Your task to perform on an android device: turn on javascript in the chrome app Image 0: 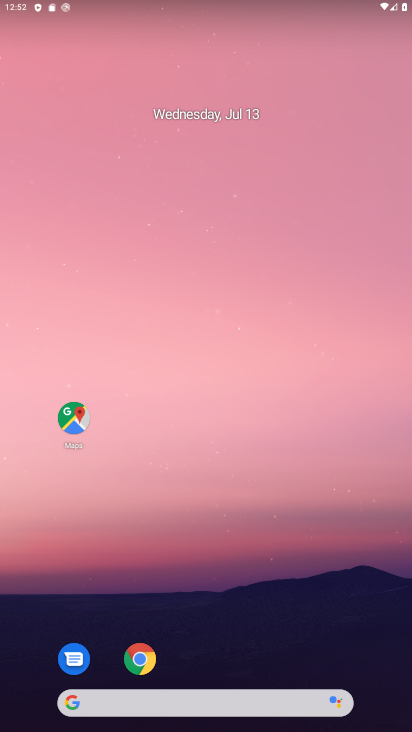
Step 0: click (152, 666)
Your task to perform on an android device: turn on javascript in the chrome app Image 1: 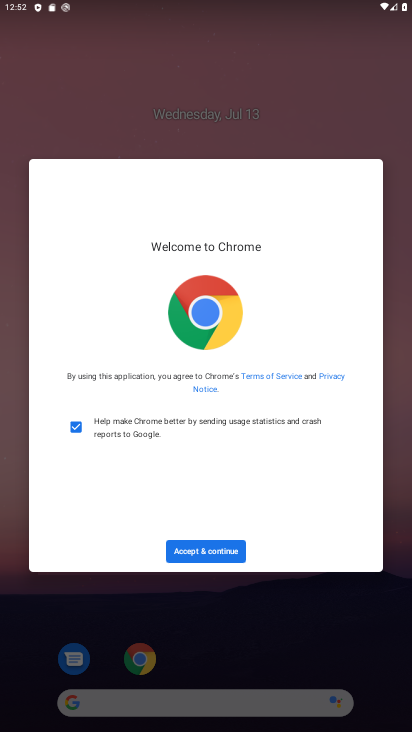
Step 1: click (212, 551)
Your task to perform on an android device: turn on javascript in the chrome app Image 2: 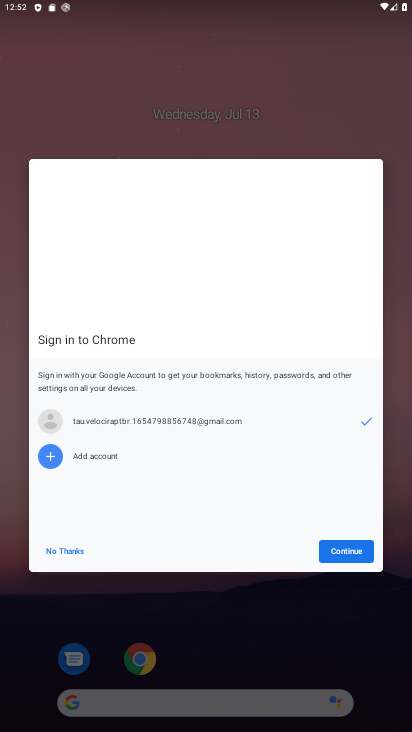
Step 2: click (340, 545)
Your task to perform on an android device: turn on javascript in the chrome app Image 3: 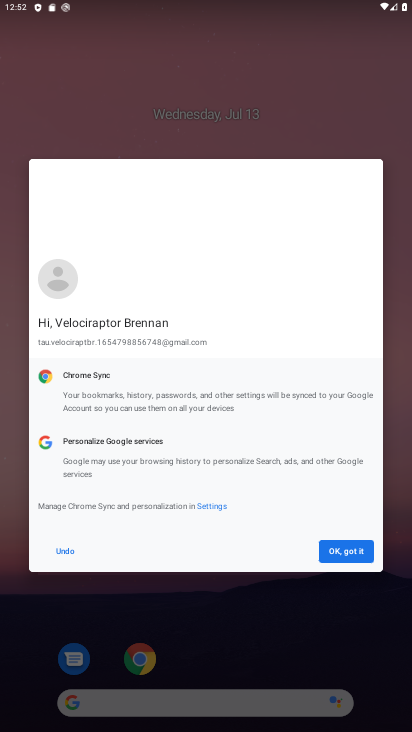
Step 3: click (332, 545)
Your task to perform on an android device: turn on javascript in the chrome app Image 4: 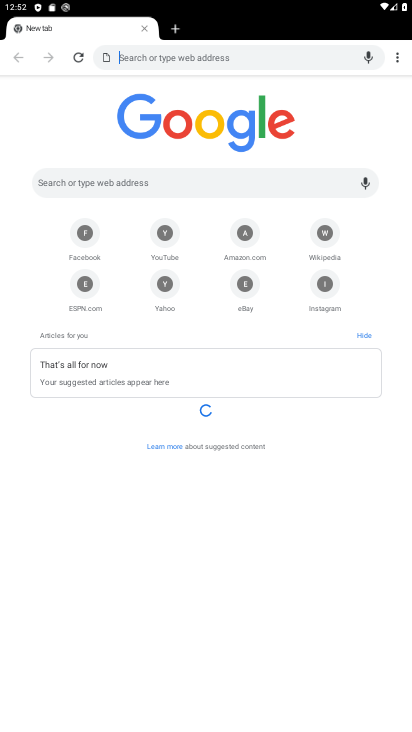
Step 4: click (394, 59)
Your task to perform on an android device: turn on javascript in the chrome app Image 5: 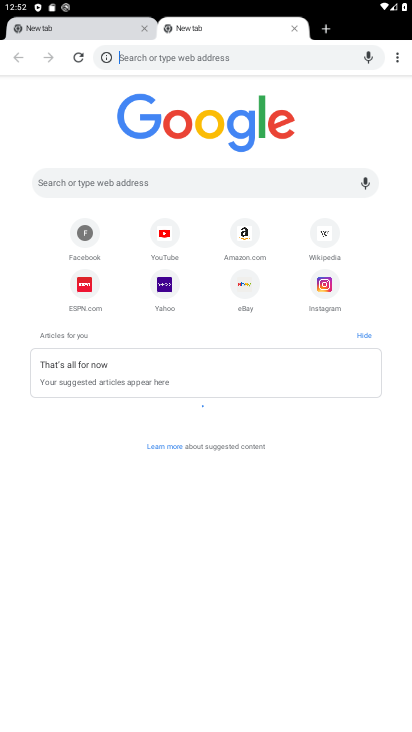
Step 5: click (394, 50)
Your task to perform on an android device: turn on javascript in the chrome app Image 6: 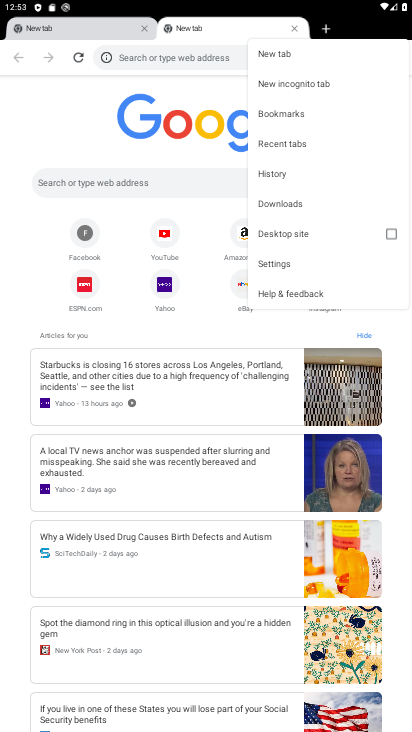
Step 6: click (282, 261)
Your task to perform on an android device: turn on javascript in the chrome app Image 7: 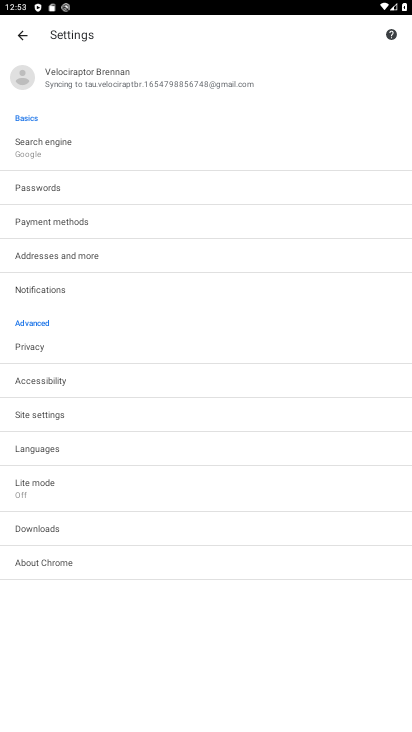
Step 7: click (49, 412)
Your task to perform on an android device: turn on javascript in the chrome app Image 8: 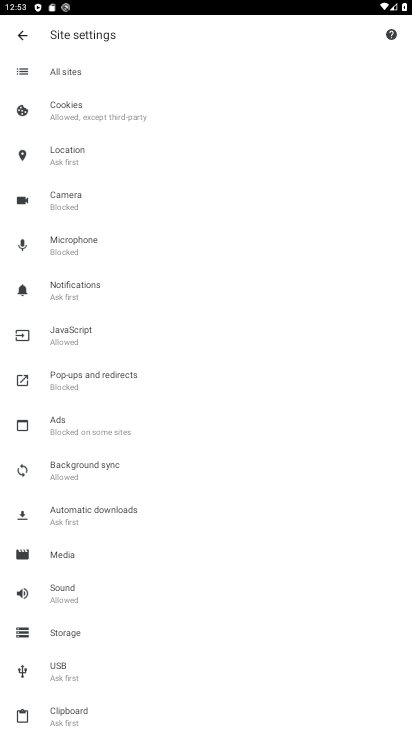
Step 8: click (90, 331)
Your task to perform on an android device: turn on javascript in the chrome app Image 9: 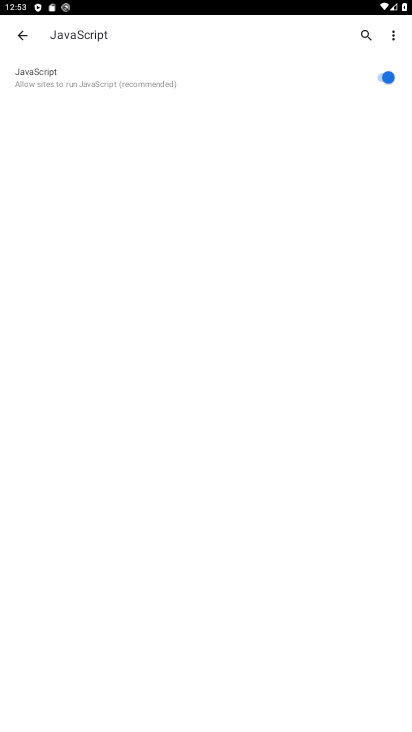
Step 9: task complete